Your task to perform on an android device: toggle sleep mode Image 0: 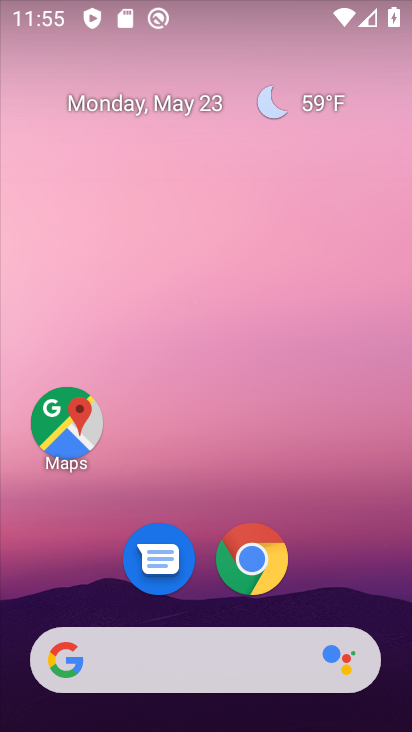
Step 0: drag from (393, 698) to (354, 185)
Your task to perform on an android device: toggle sleep mode Image 1: 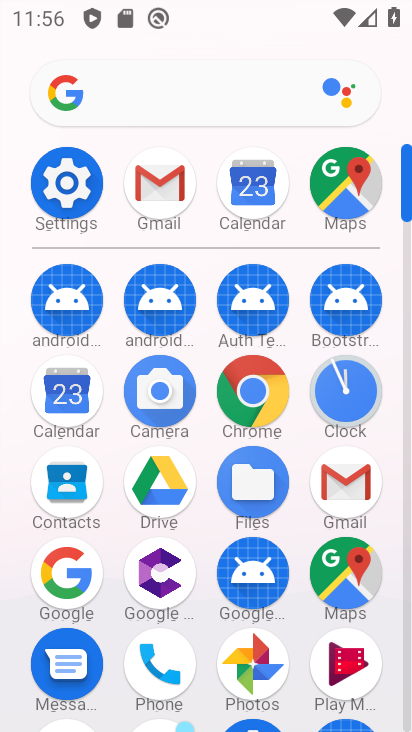
Step 1: click (62, 165)
Your task to perform on an android device: toggle sleep mode Image 2: 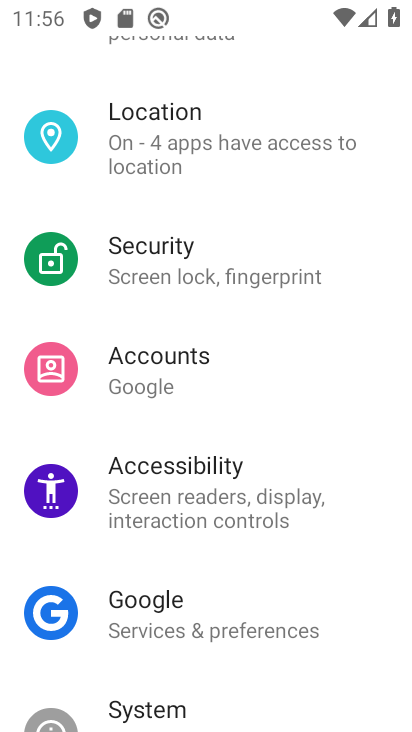
Step 2: drag from (340, 85) to (342, 687)
Your task to perform on an android device: toggle sleep mode Image 3: 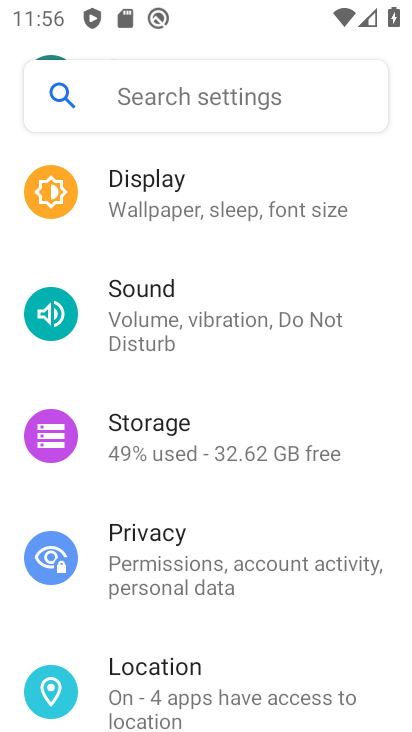
Step 3: click (166, 186)
Your task to perform on an android device: toggle sleep mode Image 4: 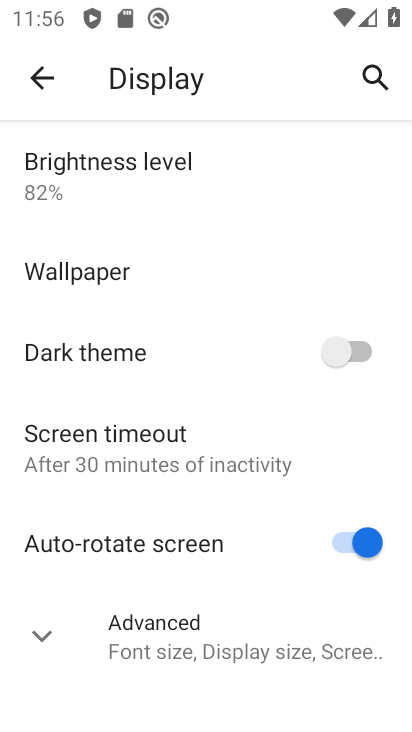
Step 4: click (102, 454)
Your task to perform on an android device: toggle sleep mode Image 5: 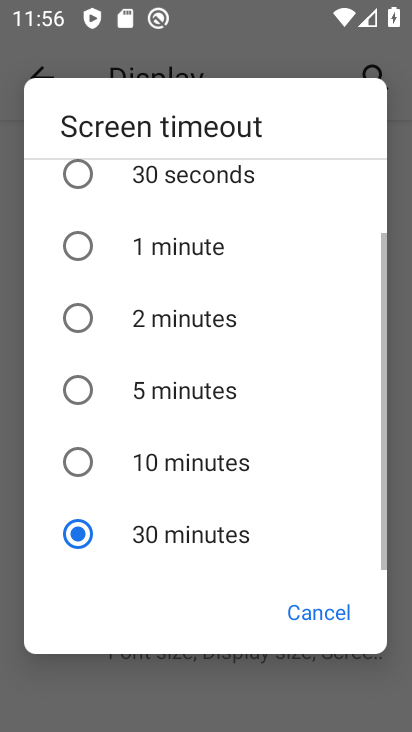
Step 5: click (79, 458)
Your task to perform on an android device: toggle sleep mode Image 6: 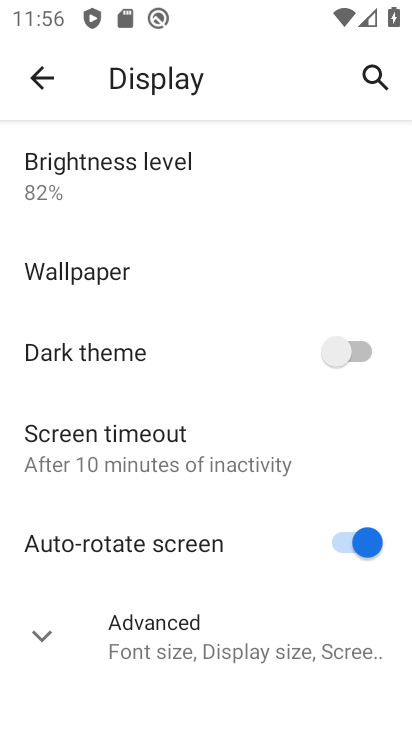
Step 6: task complete